Your task to perform on an android device: Go to battery settings Image 0: 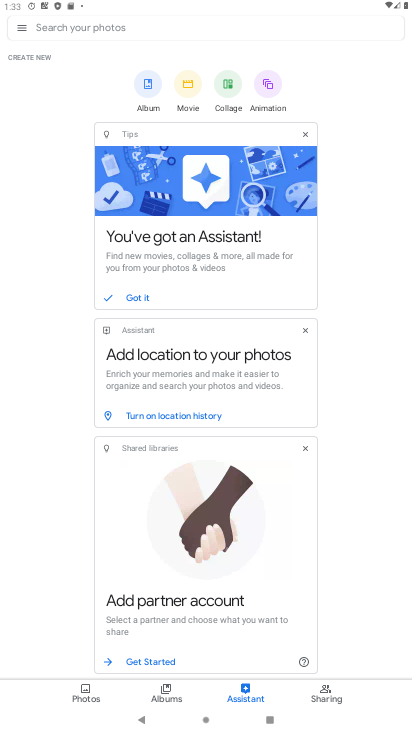
Step 0: press home button
Your task to perform on an android device: Go to battery settings Image 1: 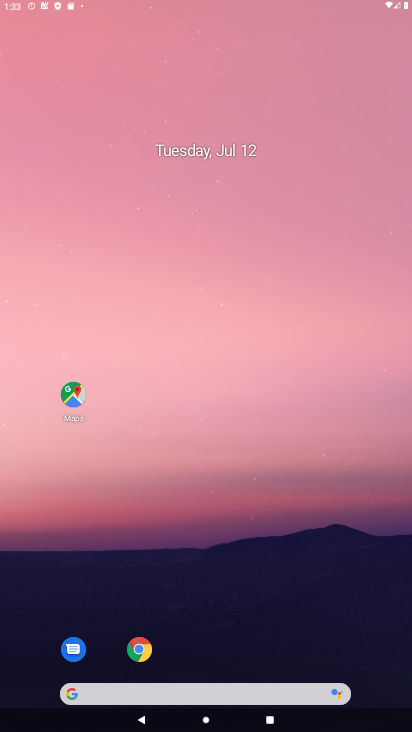
Step 1: drag from (389, 700) to (90, 276)
Your task to perform on an android device: Go to battery settings Image 2: 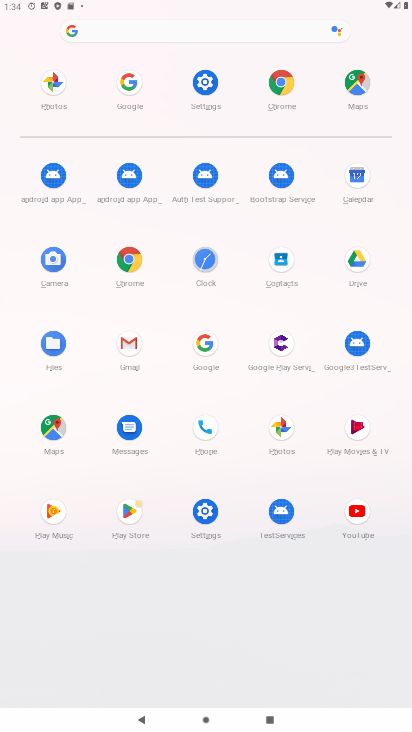
Step 2: click (208, 530)
Your task to perform on an android device: Go to battery settings Image 3: 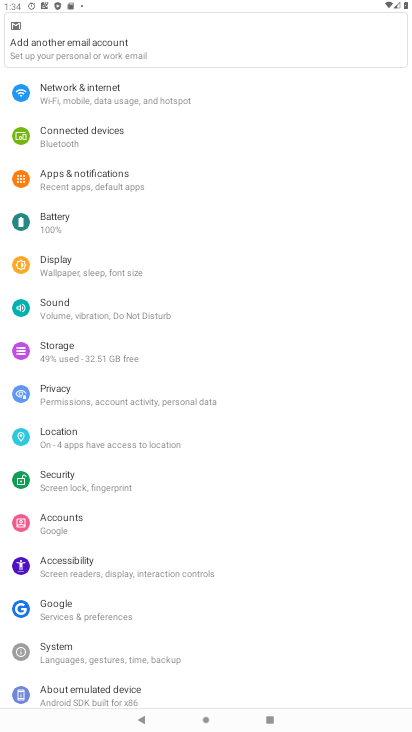
Step 3: click (77, 227)
Your task to perform on an android device: Go to battery settings Image 4: 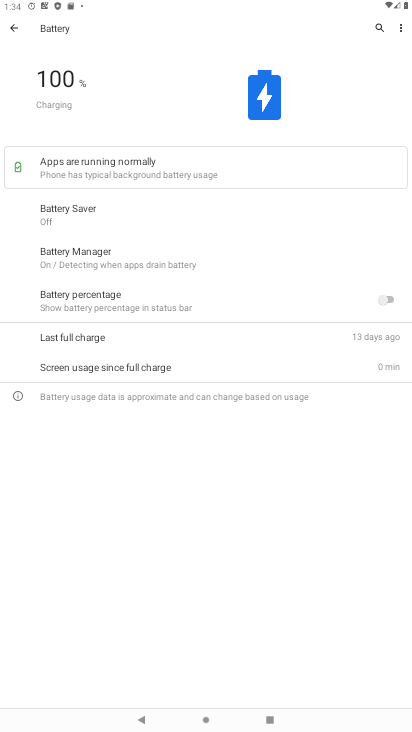
Step 4: task complete